Your task to perform on an android device: clear all cookies in the chrome app Image 0: 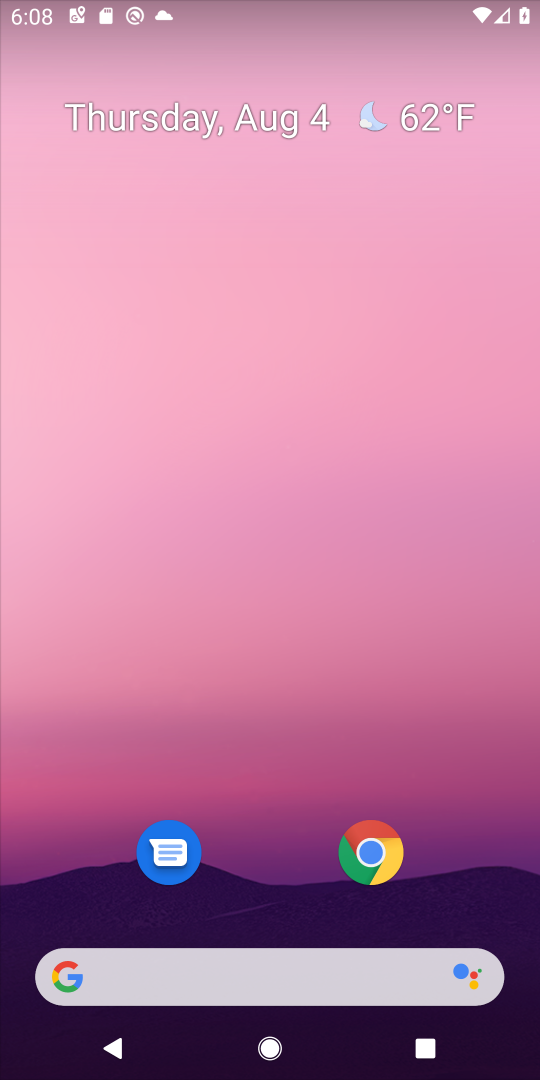
Step 0: click (367, 852)
Your task to perform on an android device: clear all cookies in the chrome app Image 1: 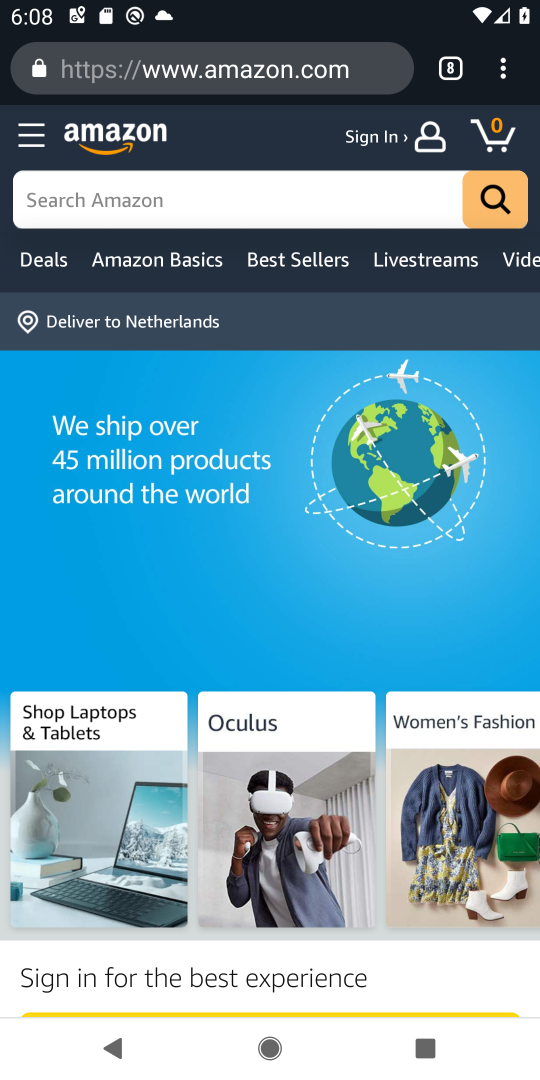
Step 1: click (501, 77)
Your task to perform on an android device: clear all cookies in the chrome app Image 2: 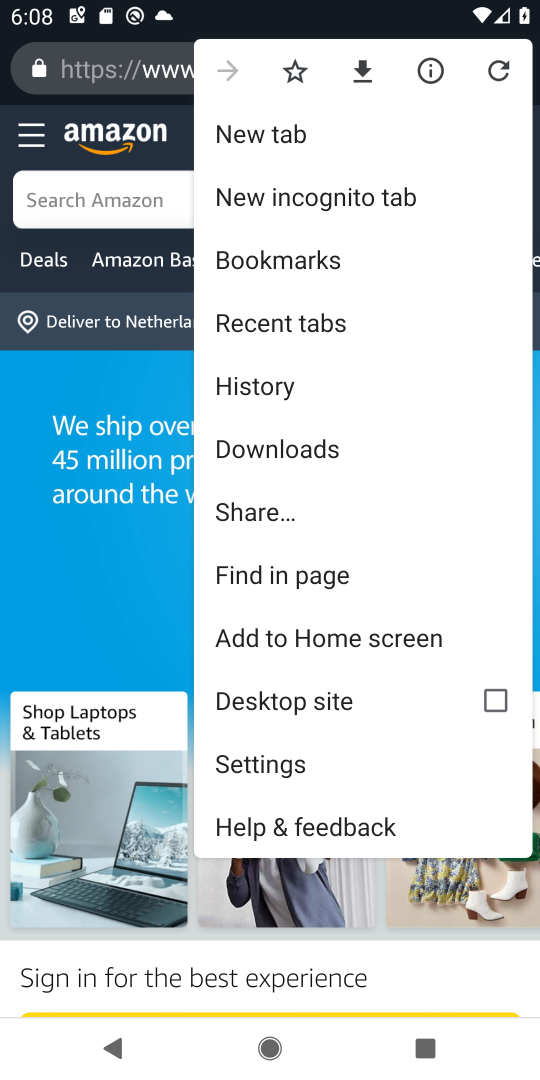
Step 2: click (250, 385)
Your task to perform on an android device: clear all cookies in the chrome app Image 3: 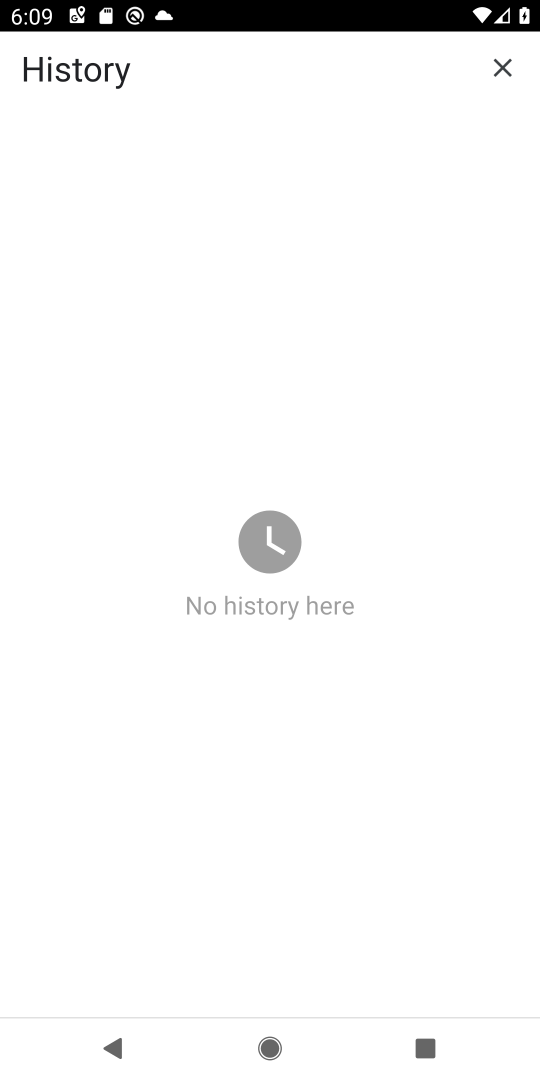
Step 3: task complete